Your task to perform on an android device: What is the recent news? Image 0: 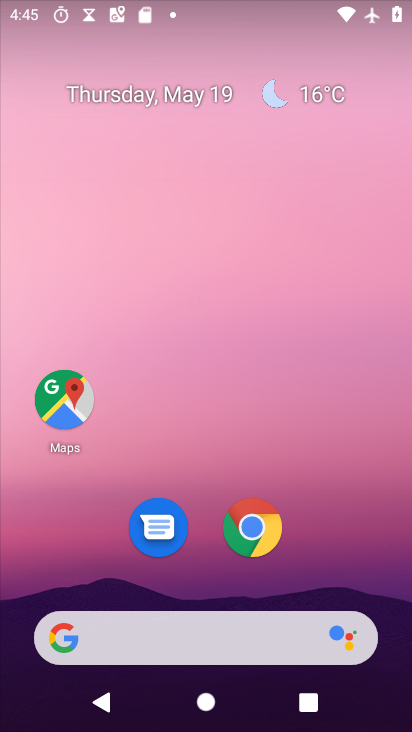
Step 0: drag from (349, 544) to (137, 21)
Your task to perform on an android device: What is the recent news? Image 1: 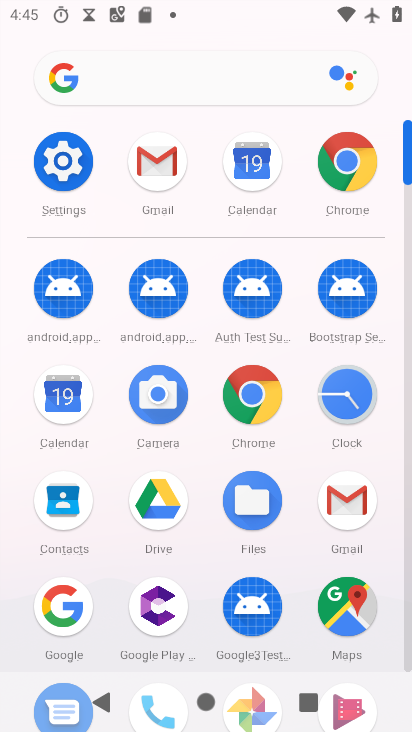
Step 1: click (61, 602)
Your task to perform on an android device: What is the recent news? Image 2: 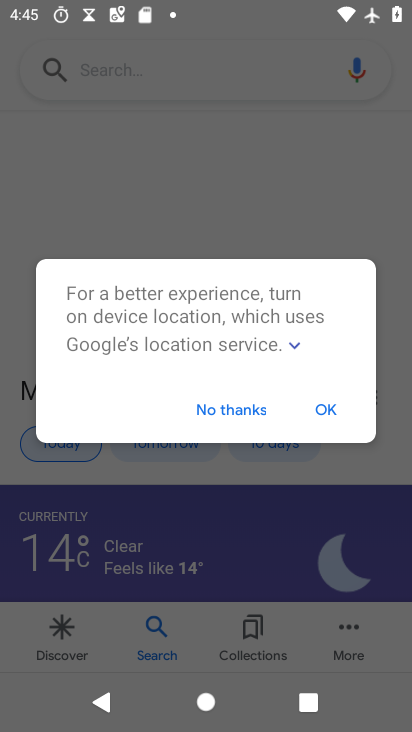
Step 2: click (215, 407)
Your task to perform on an android device: What is the recent news? Image 3: 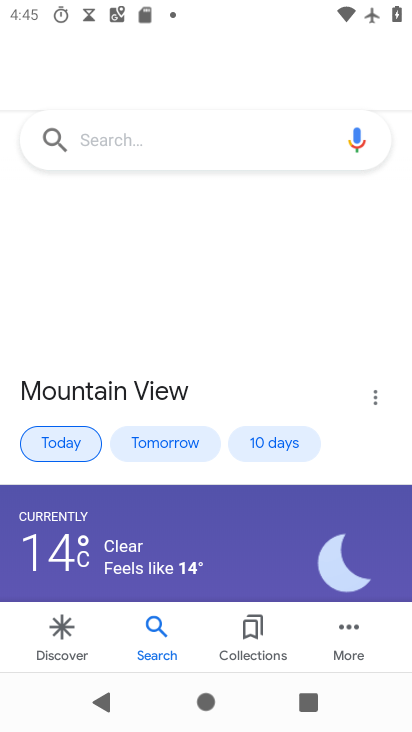
Step 3: click (186, 130)
Your task to perform on an android device: What is the recent news? Image 4: 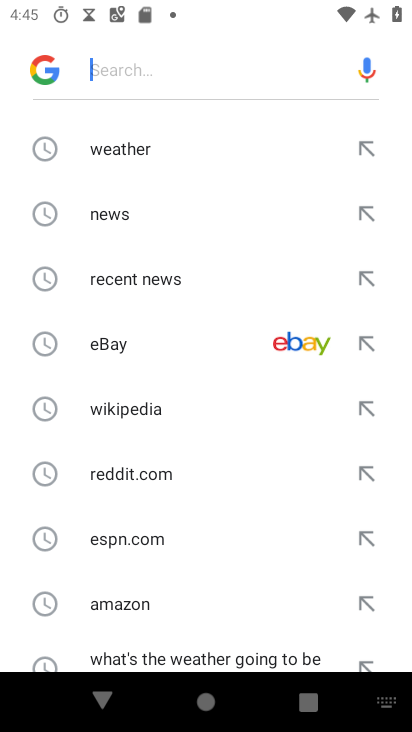
Step 4: click (178, 262)
Your task to perform on an android device: What is the recent news? Image 5: 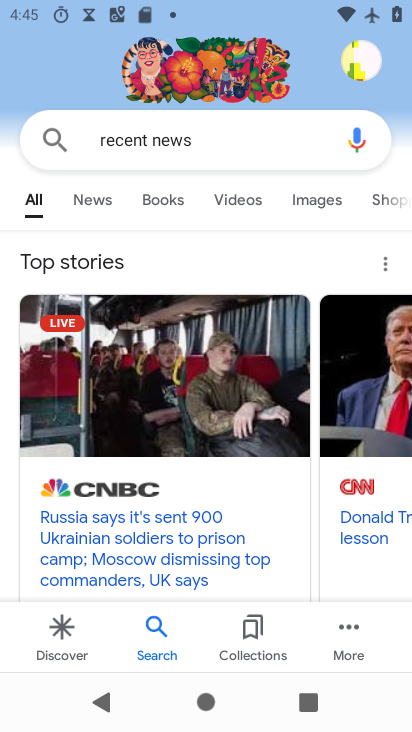
Step 5: task complete